Your task to perform on an android device: toggle javascript in the chrome app Image 0: 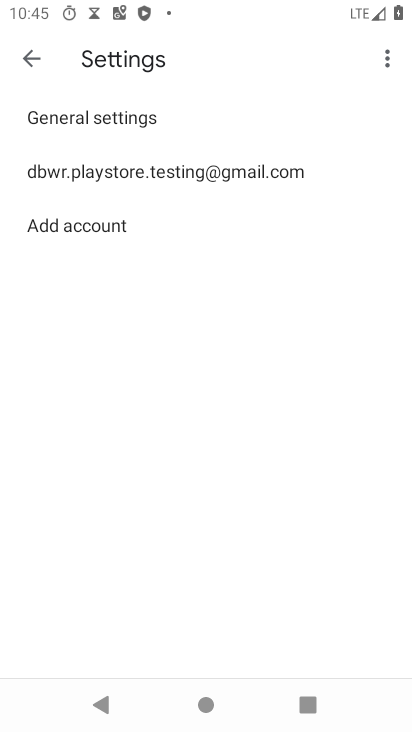
Step 0: press home button
Your task to perform on an android device: toggle javascript in the chrome app Image 1: 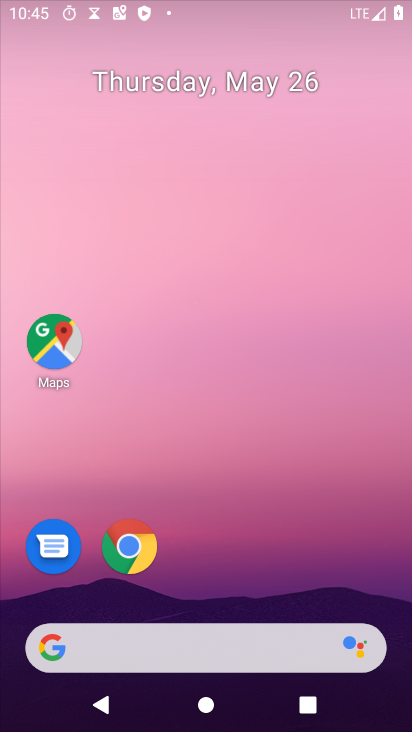
Step 1: drag from (360, 580) to (357, 213)
Your task to perform on an android device: toggle javascript in the chrome app Image 2: 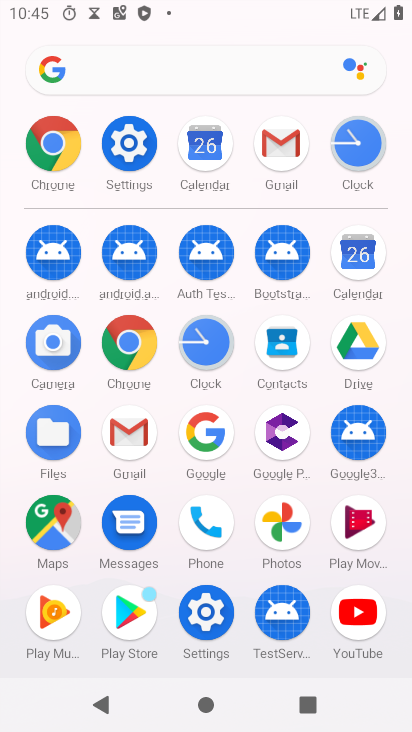
Step 2: click (135, 350)
Your task to perform on an android device: toggle javascript in the chrome app Image 3: 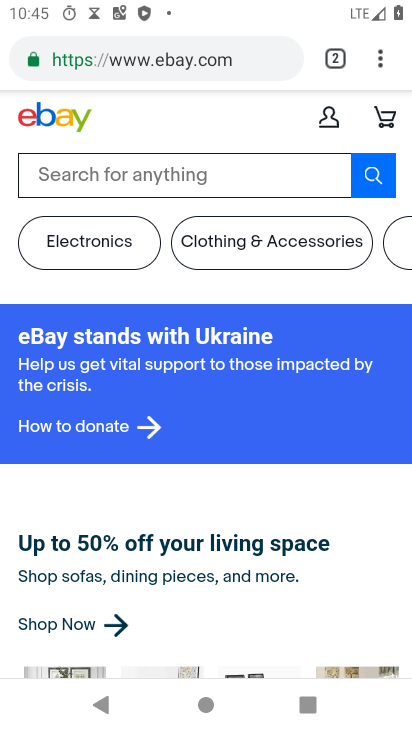
Step 3: drag from (382, 61) to (178, 562)
Your task to perform on an android device: toggle javascript in the chrome app Image 4: 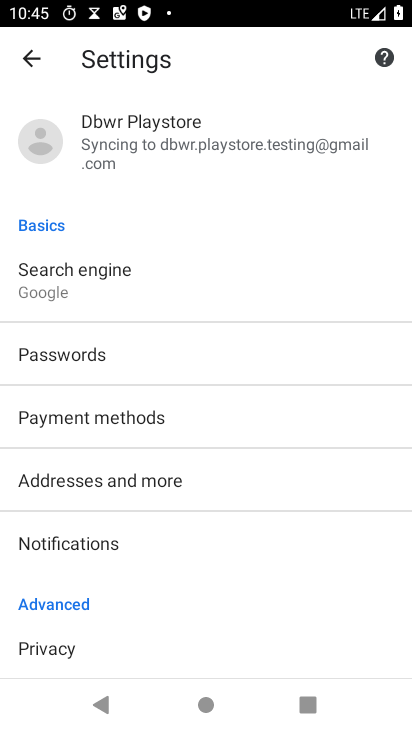
Step 4: drag from (183, 619) to (250, 278)
Your task to perform on an android device: toggle javascript in the chrome app Image 5: 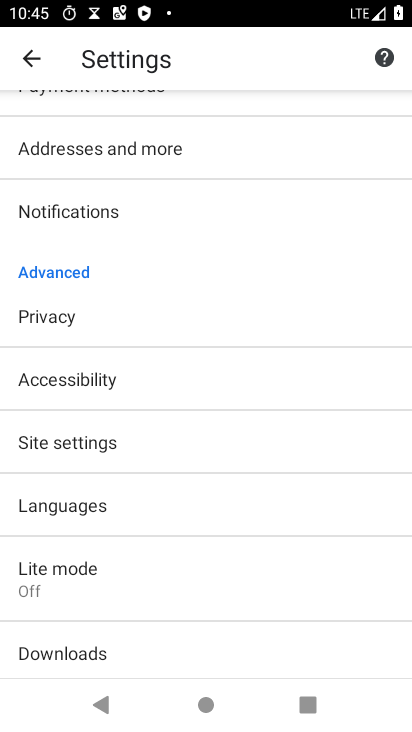
Step 5: click (143, 435)
Your task to perform on an android device: toggle javascript in the chrome app Image 6: 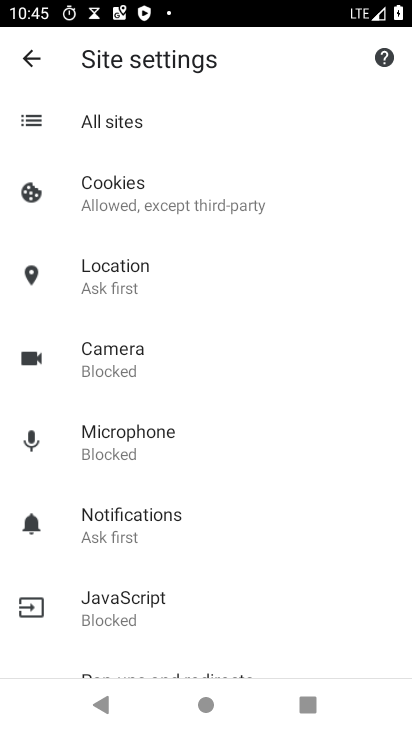
Step 6: drag from (200, 551) to (241, 412)
Your task to perform on an android device: toggle javascript in the chrome app Image 7: 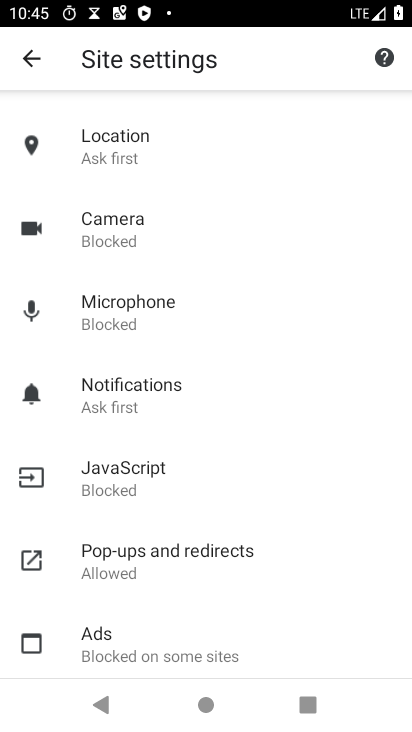
Step 7: click (177, 470)
Your task to perform on an android device: toggle javascript in the chrome app Image 8: 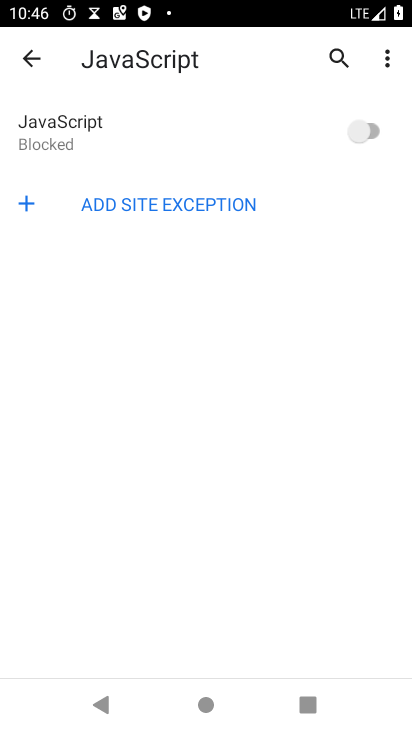
Step 8: click (379, 124)
Your task to perform on an android device: toggle javascript in the chrome app Image 9: 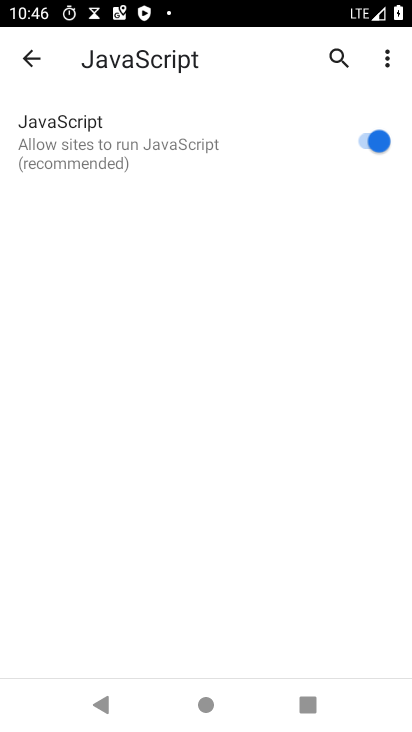
Step 9: task complete